Your task to perform on an android device: Find coffee shops on Maps Image 0: 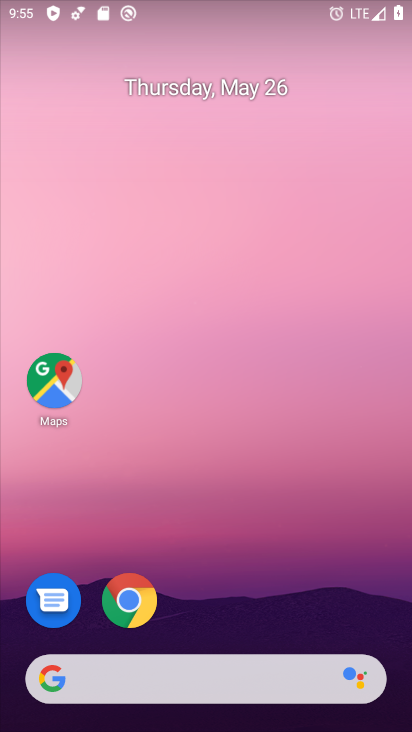
Step 0: click (60, 386)
Your task to perform on an android device: Find coffee shops on Maps Image 1: 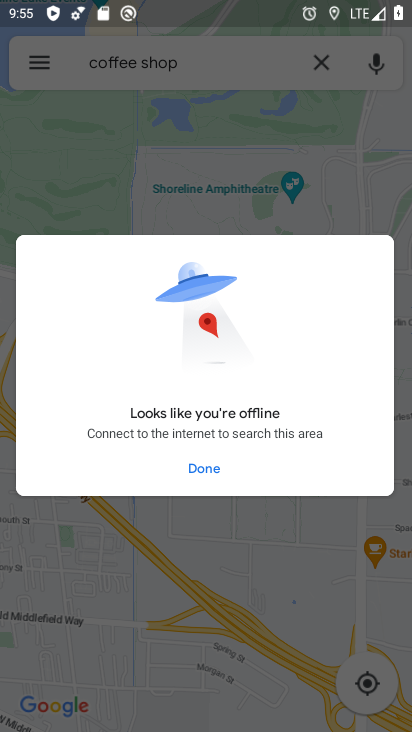
Step 1: click (166, 467)
Your task to perform on an android device: Find coffee shops on Maps Image 2: 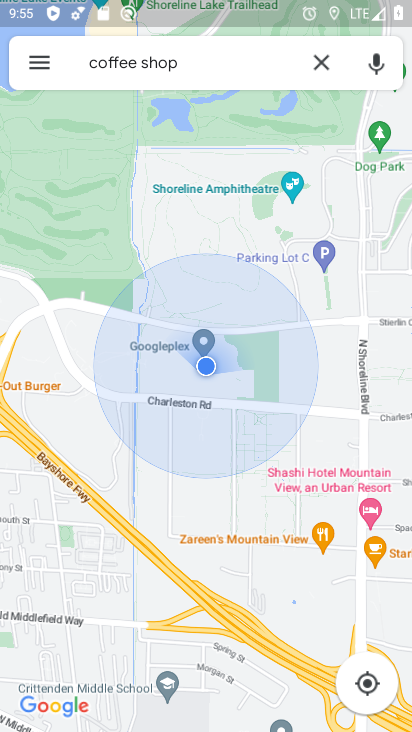
Step 2: click (219, 44)
Your task to perform on an android device: Find coffee shops on Maps Image 3: 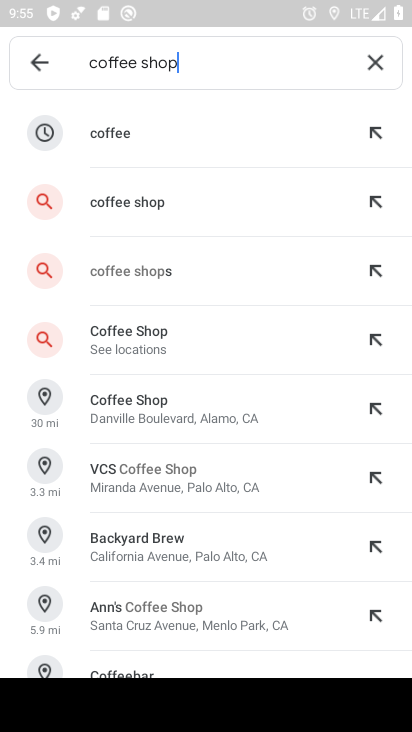
Step 3: click (158, 267)
Your task to perform on an android device: Find coffee shops on Maps Image 4: 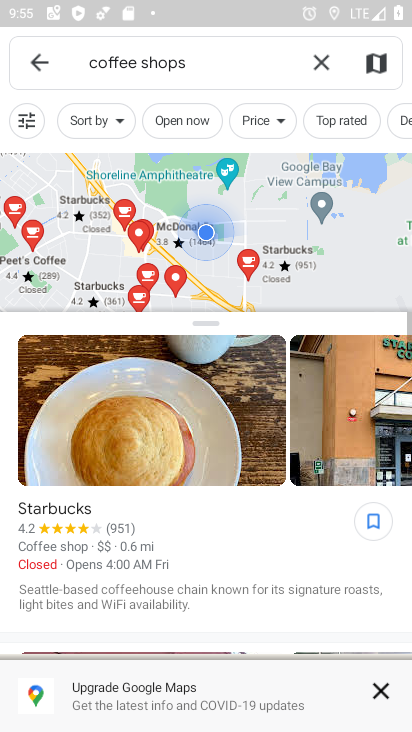
Step 4: task complete